Your task to perform on an android device: create a new album in the google photos Image 0: 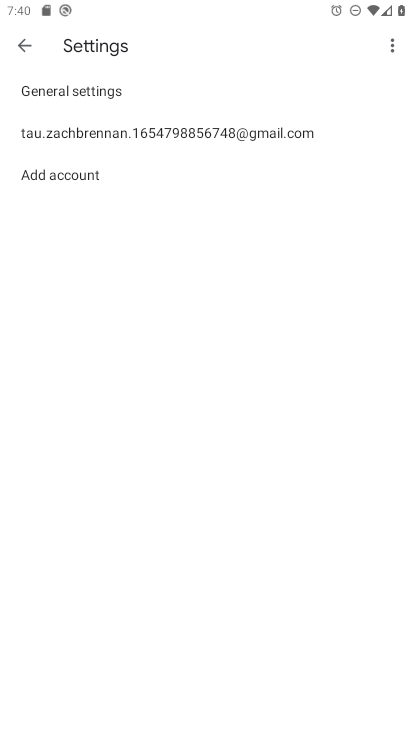
Step 0: press home button
Your task to perform on an android device: create a new album in the google photos Image 1: 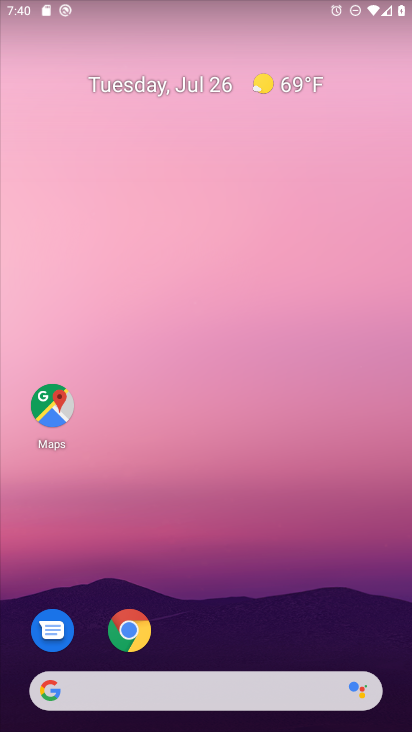
Step 1: drag from (278, 546) to (300, 115)
Your task to perform on an android device: create a new album in the google photos Image 2: 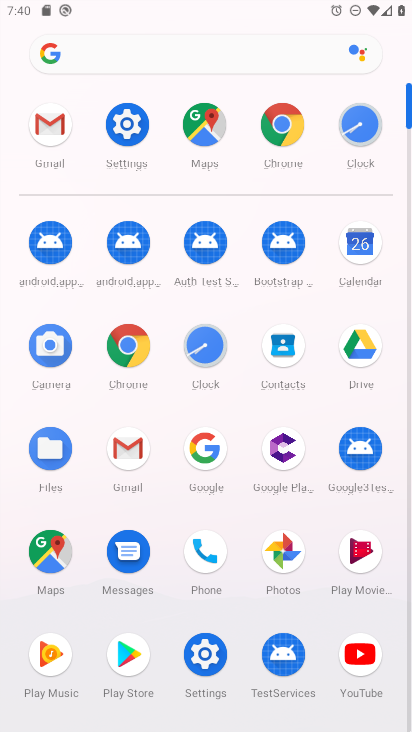
Step 2: click (289, 554)
Your task to perform on an android device: create a new album in the google photos Image 3: 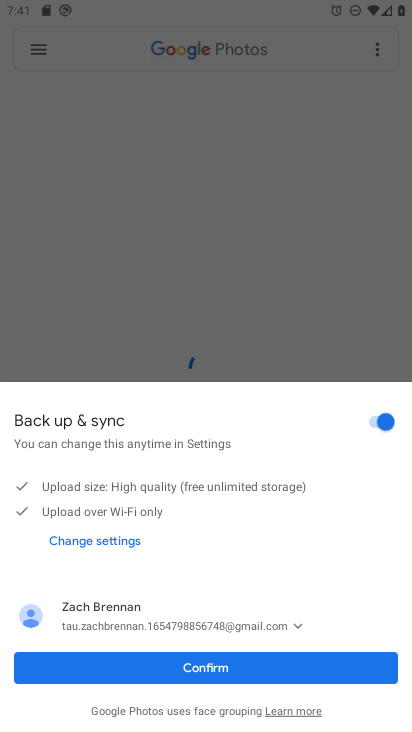
Step 3: click (306, 664)
Your task to perform on an android device: create a new album in the google photos Image 4: 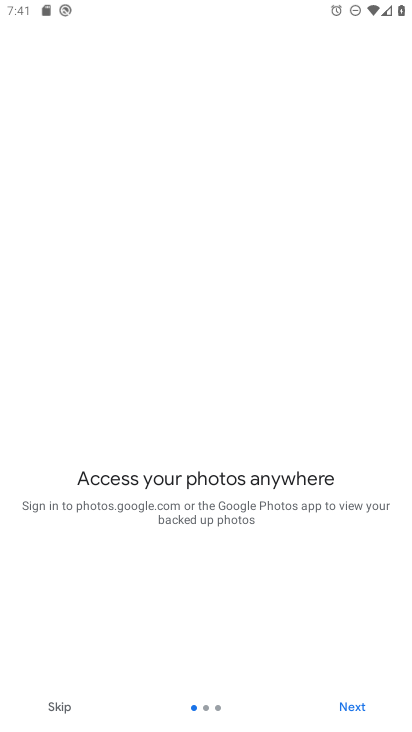
Step 4: click (70, 712)
Your task to perform on an android device: create a new album in the google photos Image 5: 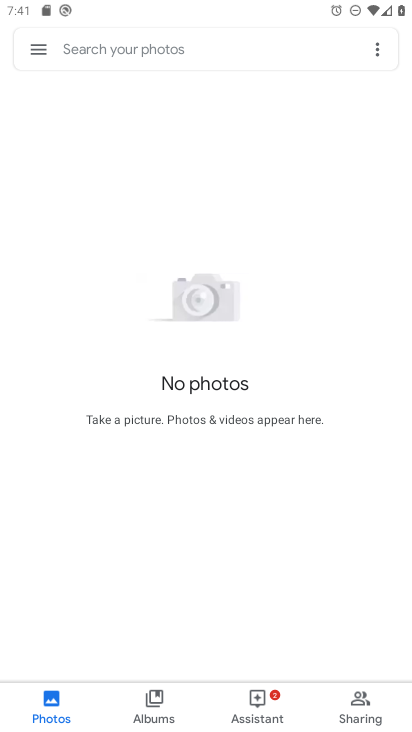
Step 5: click (160, 705)
Your task to perform on an android device: create a new album in the google photos Image 6: 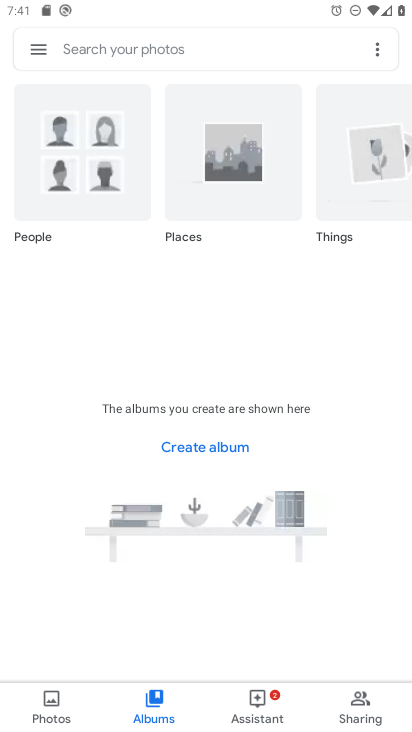
Step 6: click (216, 456)
Your task to perform on an android device: create a new album in the google photos Image 7: 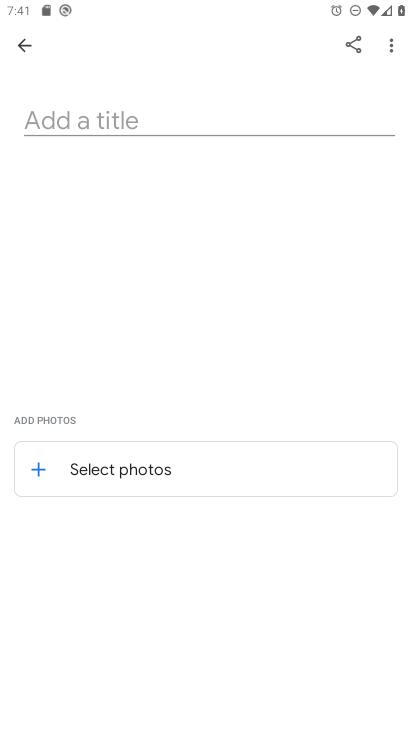
Step 7: click (147, 121)
Your task to perform on an android device: create a new album in the google photos Image 8: 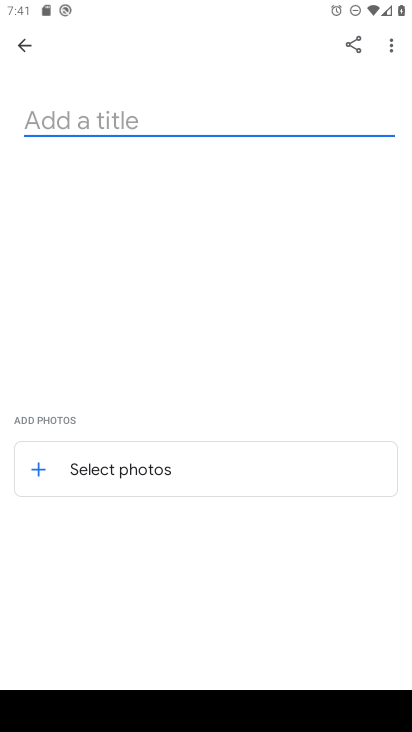
Step 8: type "gdgf"
Your task to perform on an android device: create a new album in the google photos Image 9: 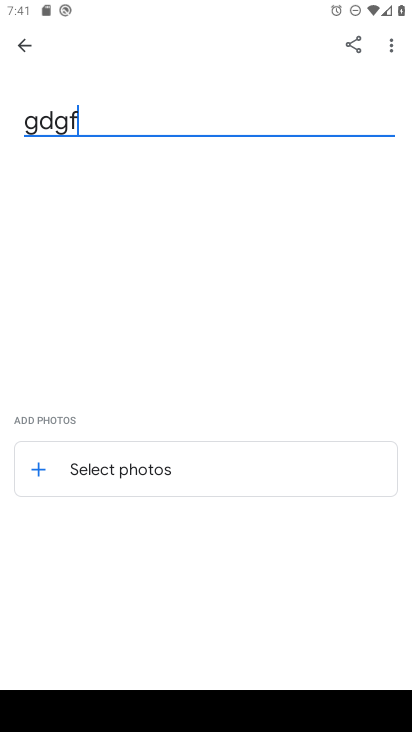
Step 9: type ""
Your task to perform on an android device: create a new album in the google photos Image 10: 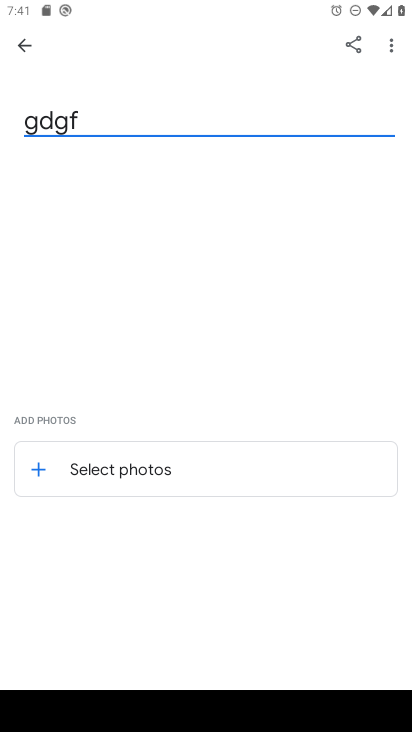
Step 10: click (151, 476)
Your task to perform on an android device: create a new album in the google photos Image 11: 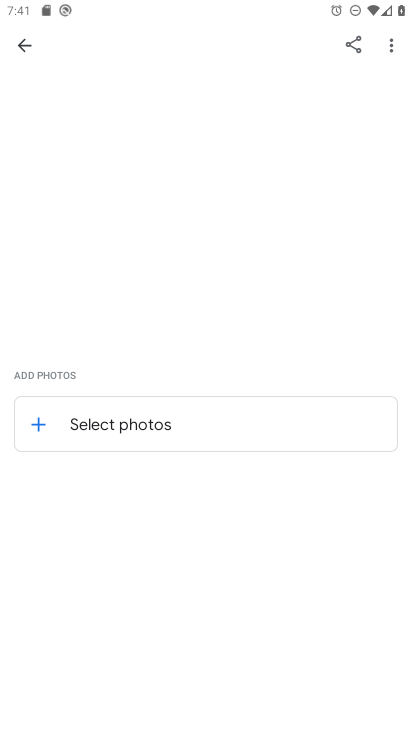
Step 11: click (151, 429)
Your task to perform on an android device: create a new album in the google photos Image 12: 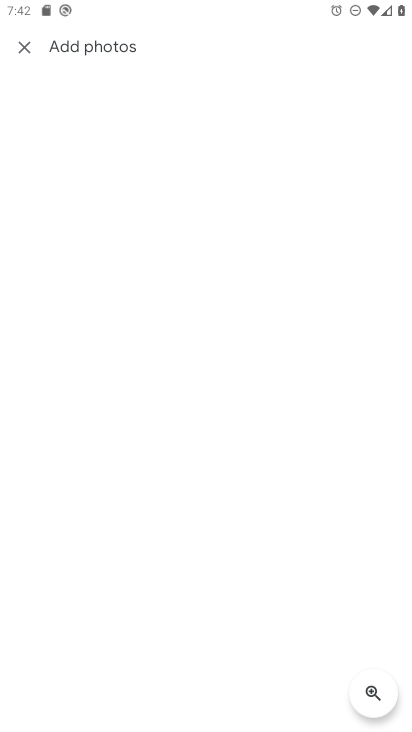
Step 12: task complete